Your task to perform on an android device: What's the weather going to be this weekend? Image 0: 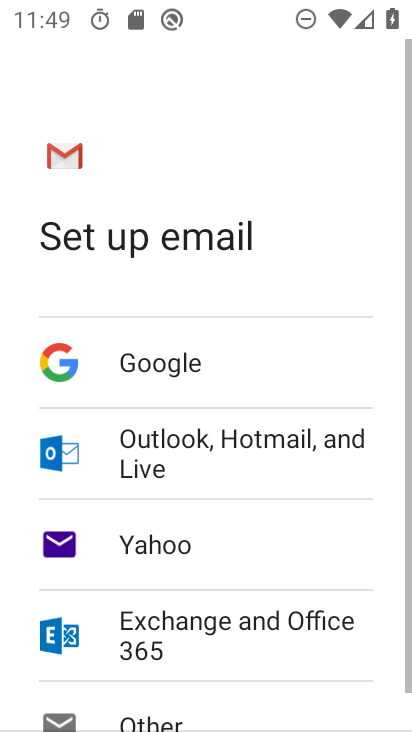
Step 0: press home button
Your task to perform on an android device: What's the weather going to be this weekend? Image 1: 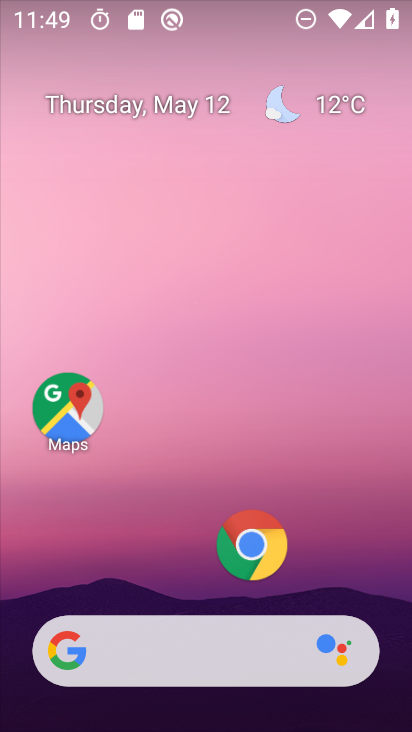
Step 1: drag from (194, 579) to (187, 54)
Your task to perform on an android device: What's the weather going to be this weekend? Image 2: 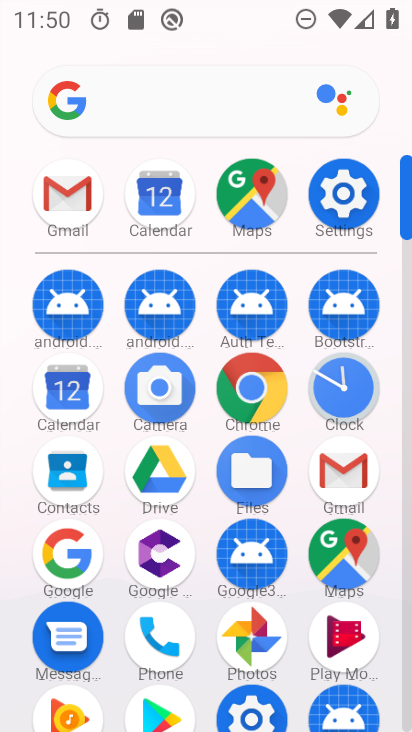
Step 2: drag from (112, 676) to (112, 217)
Your task to perform on an android device: What's the weather going to be this weekend? Image 3: 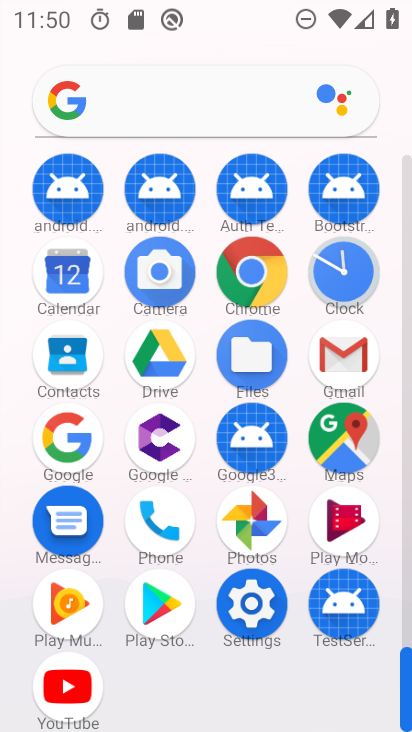
Step 3: press back button
Your task to perform on an android device: What's the weather going to be this weekend? Image 4: 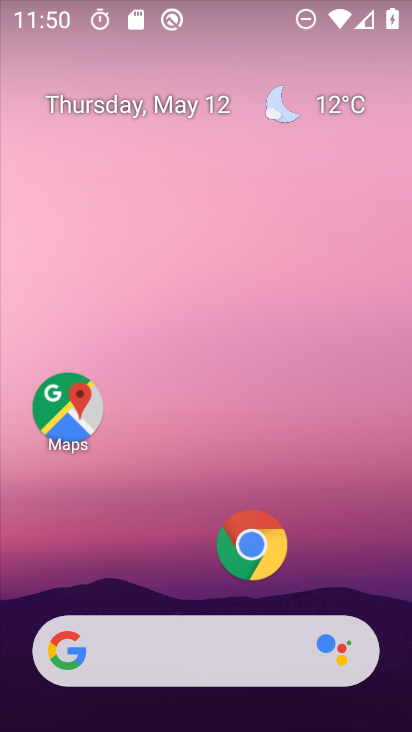
Step 4: click (344, 101)
Your task to perform on an android device: What's the weather going to be this weekend? Image 5: 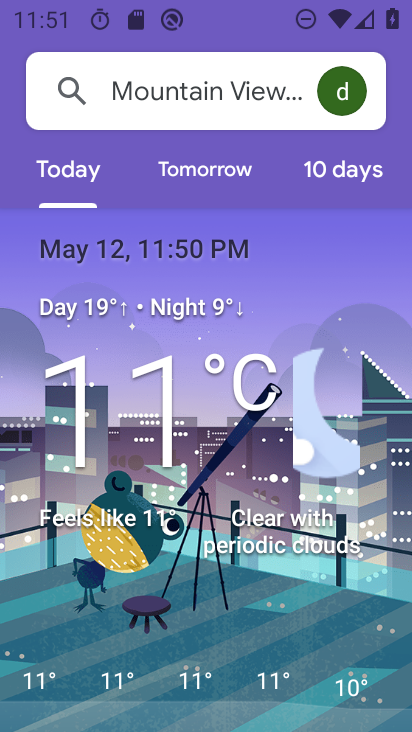
Step 5: click (344, 180)
Your task to perform on an android device: What's the weather going to be this weekend? Image 6: 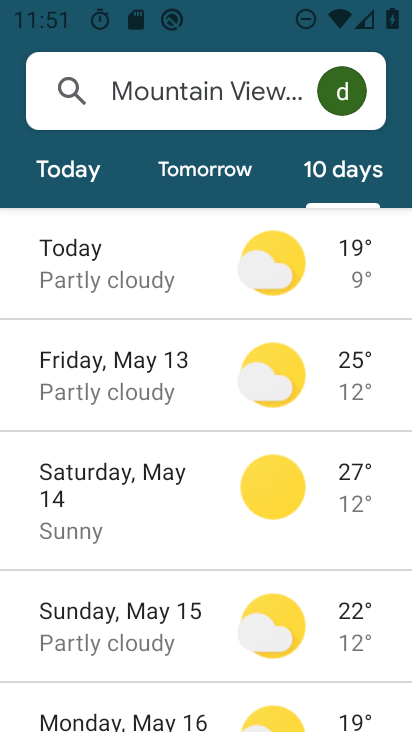
Step 6: task complete